Your task to perform on an android device: Add "razer blade" to the cart on ebay, then select checkout. Image 0: 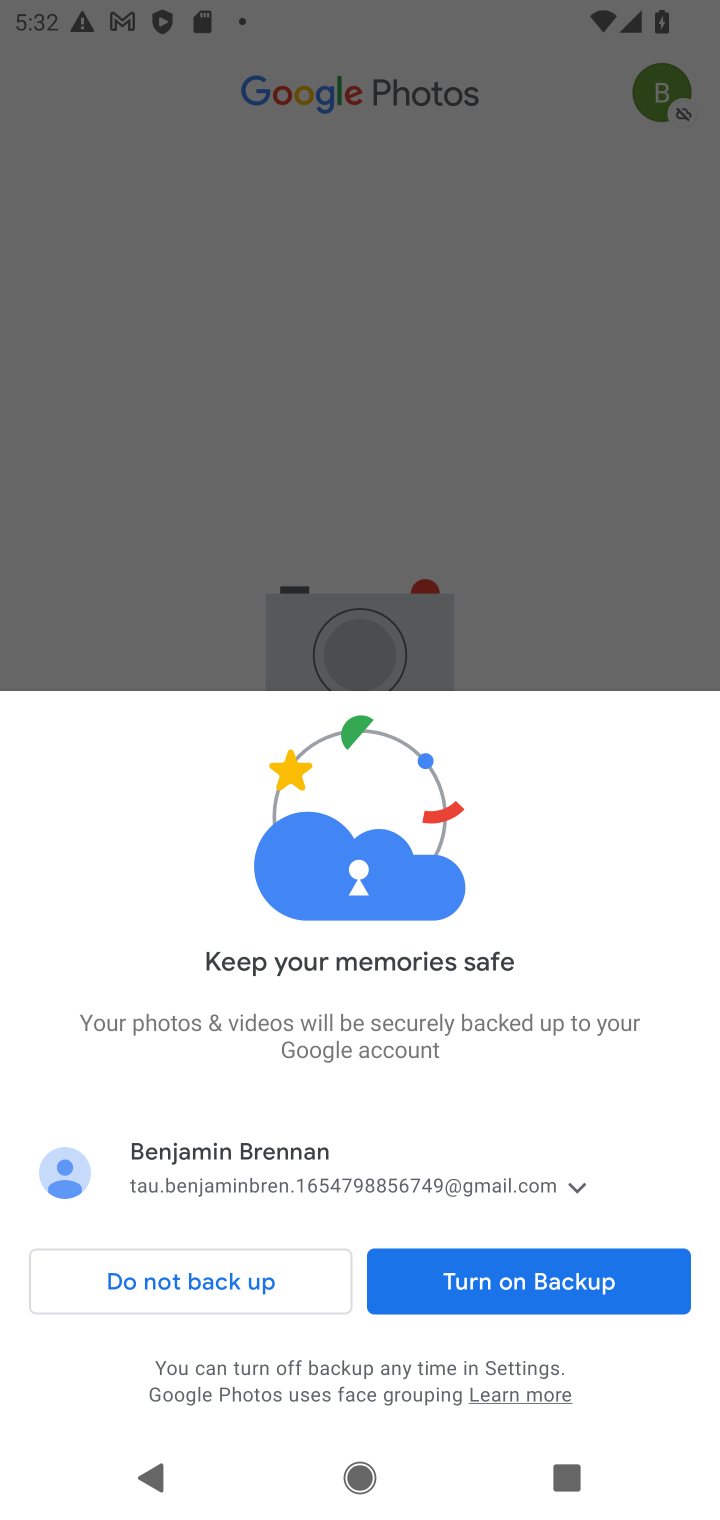
Step 0: press home button
Your task to perform on an android device: Add "razer blade" to the cart on ebay, then select checkout. Image 1: 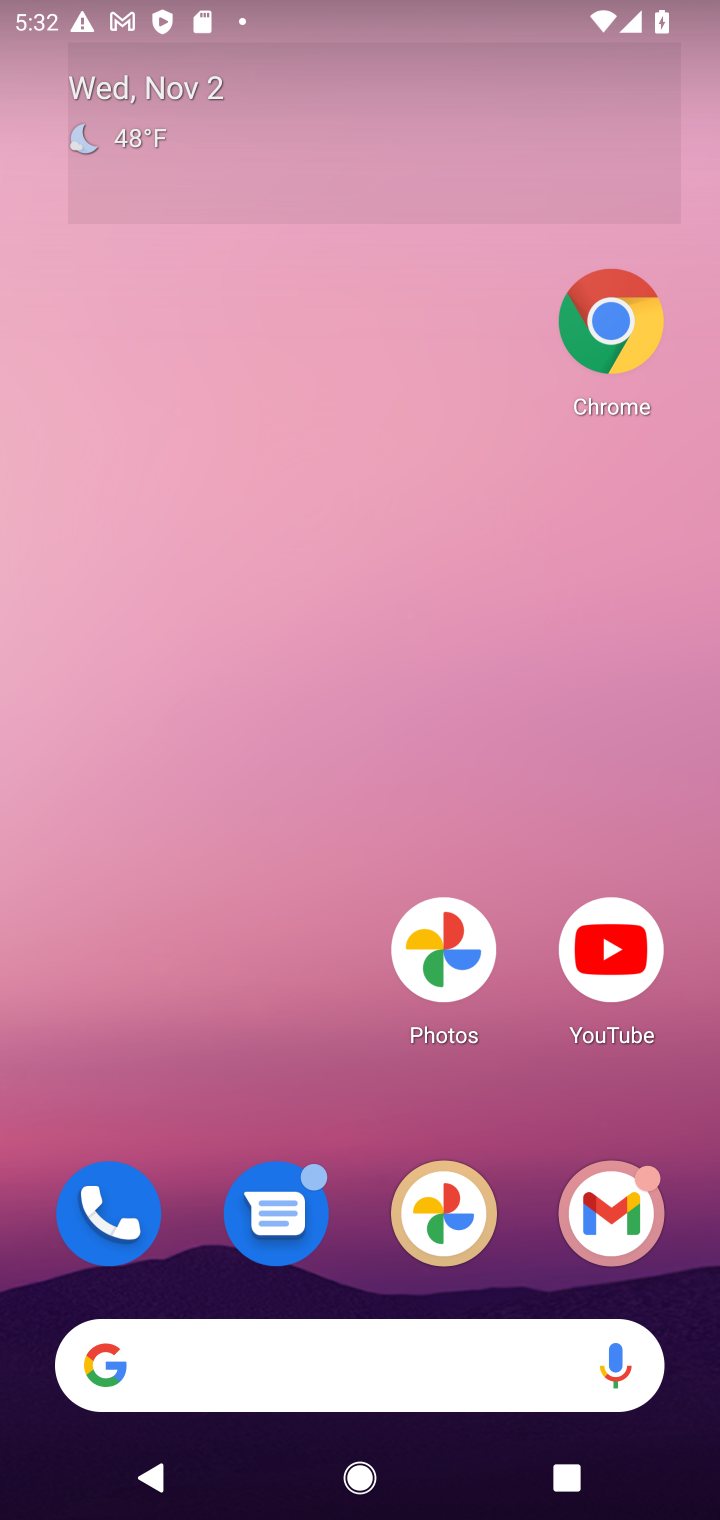
Step 1: drag from (222, 532) to (329, 10)
Your task to perform on an android device: Add "razer blade" to the cart on ebay, then select checkout. Image 2: 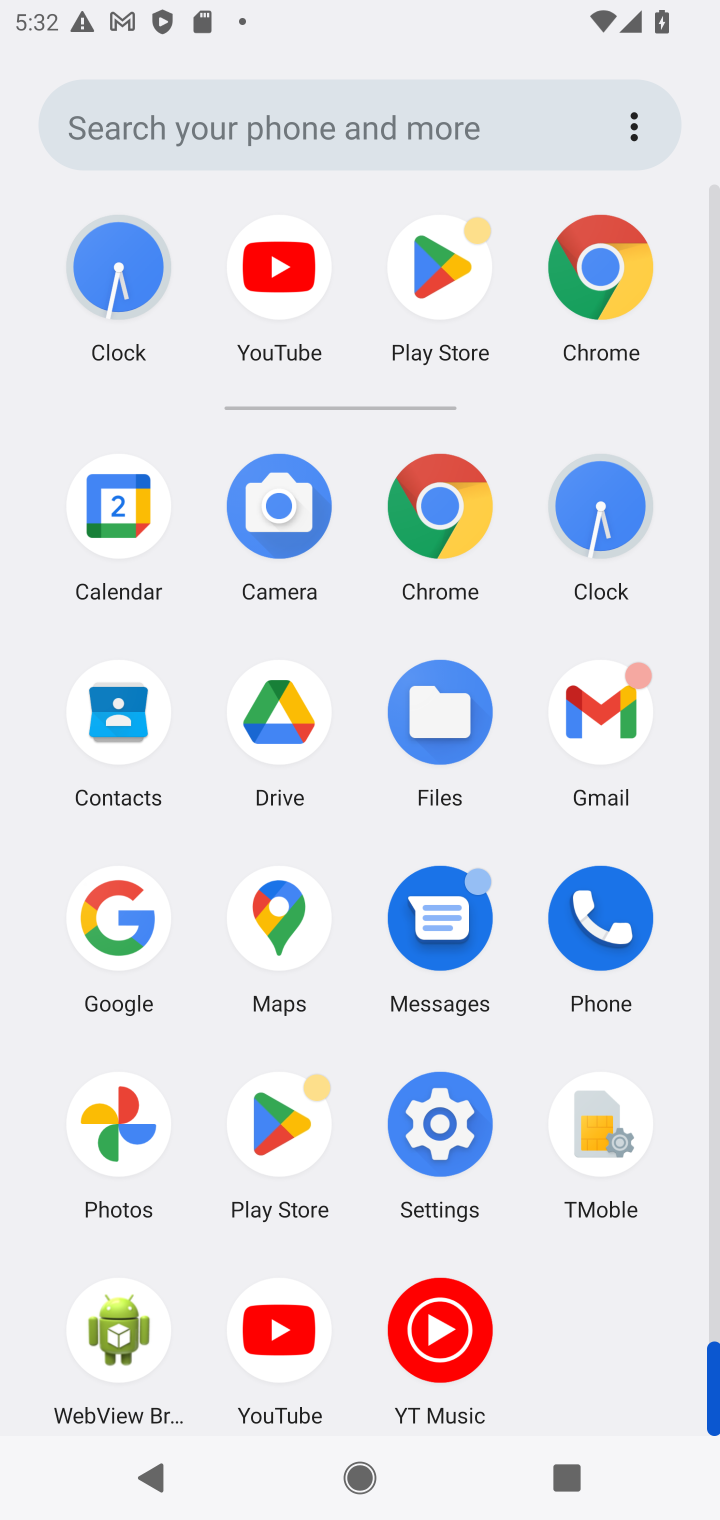
Step 2: click (124, 941)
Your task to perform on an android device: Add "razer blade" to the cart on ebay, then select checkout. Image 3: 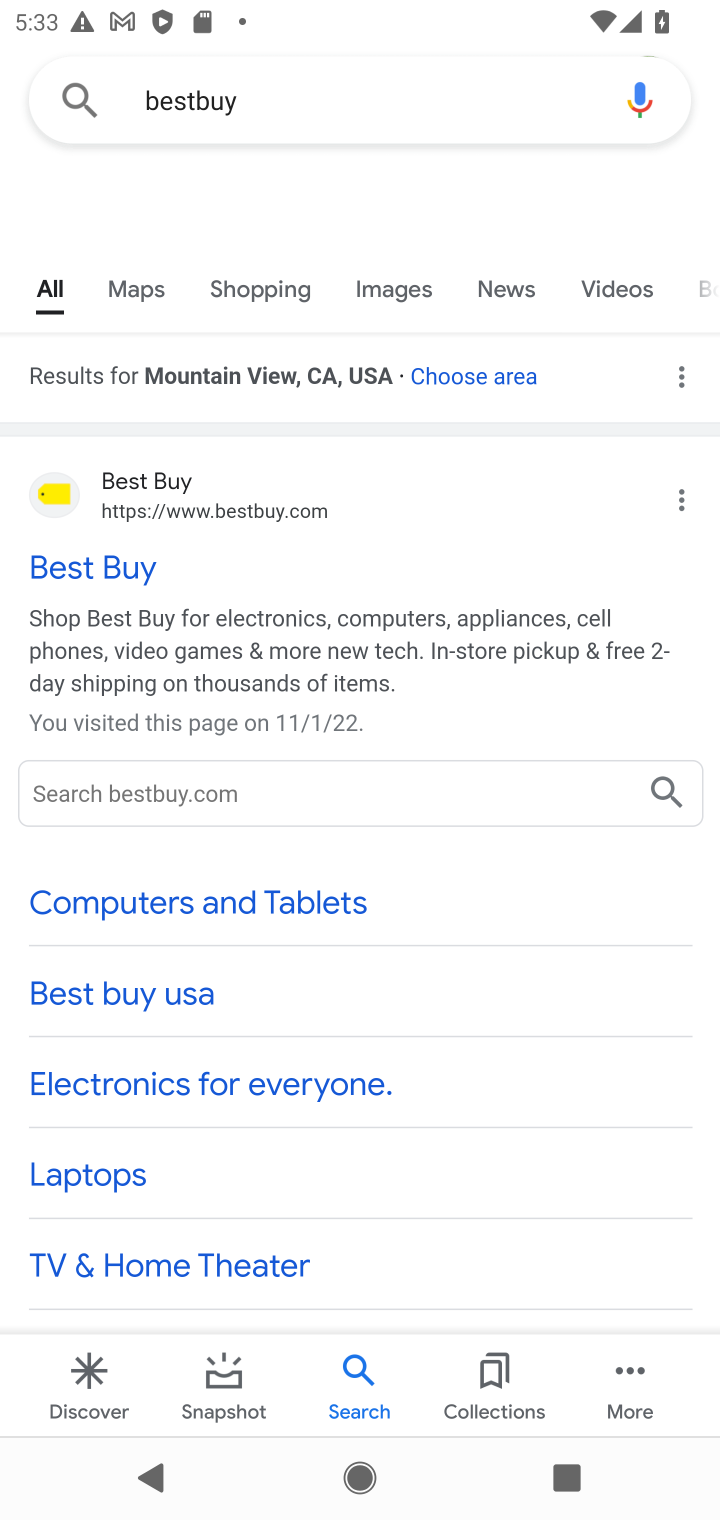
Step 3: click (430, 100)
Your task to perform on an android device: Add "razer blade" to the cart on ebay, then select checkout. Image 4: 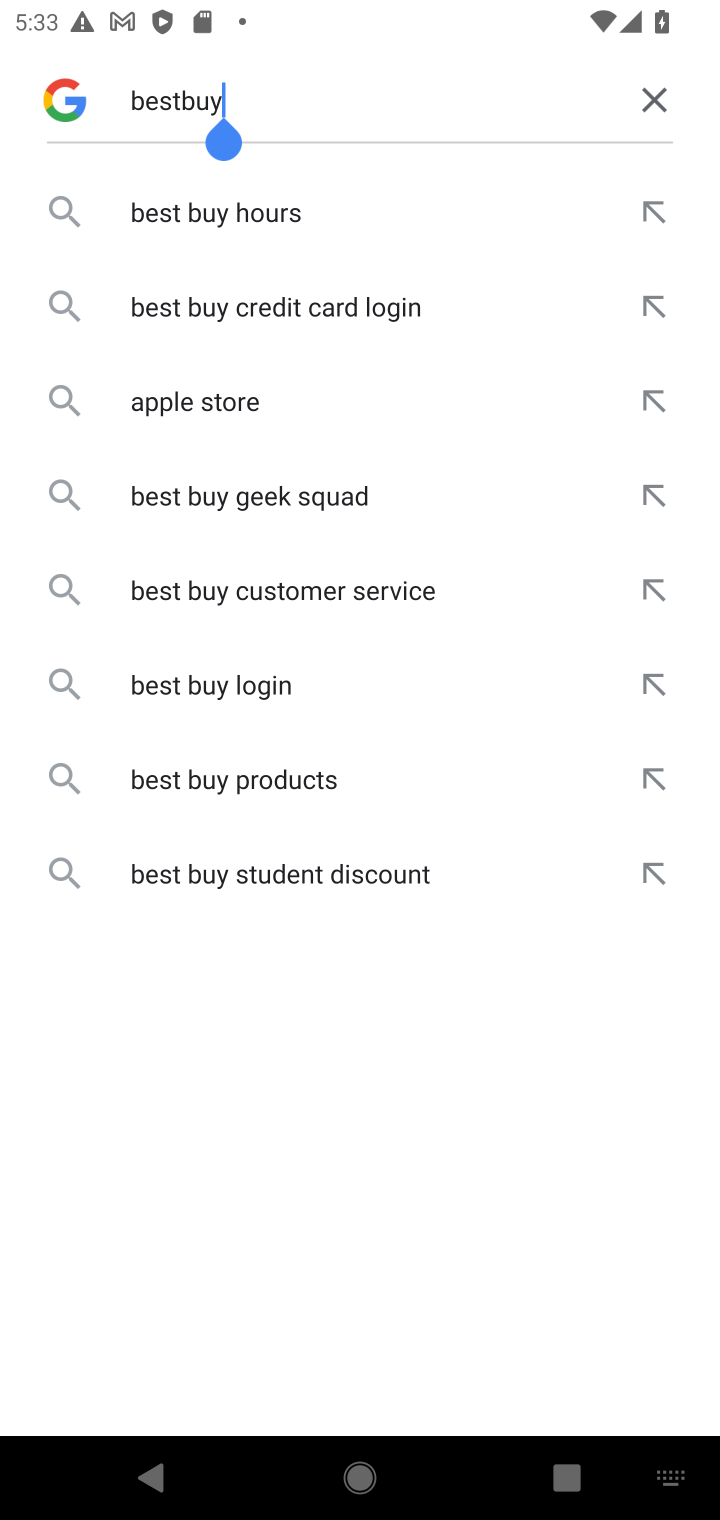
Step 4: click (640, 104)
Your task to perform on an android device: Add "razer blade" to the cart on ebay, then select checkout. Image 5: 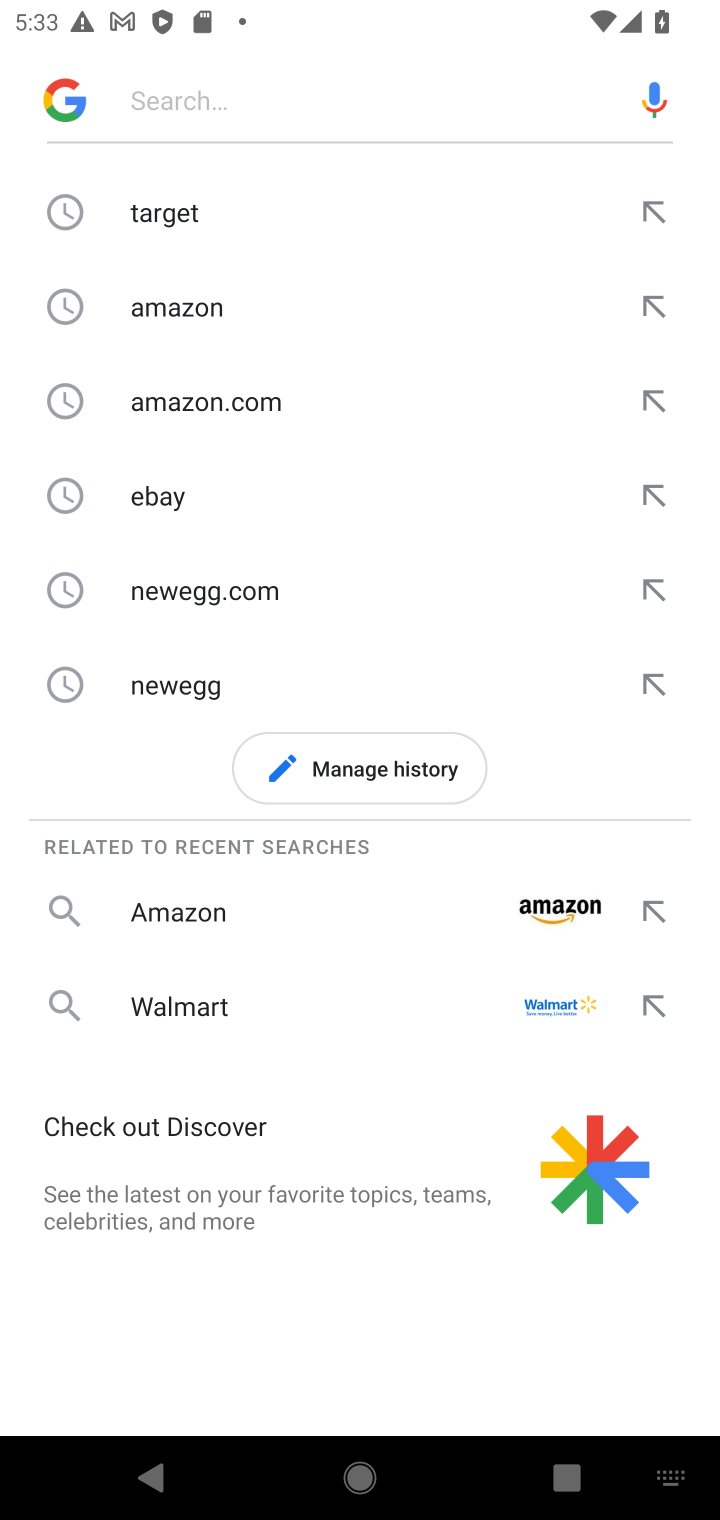
Step 5: type "ebay"
Your task to perform on an android device: Add "razer blade" to the cart on ebay, then select checkout. Image 6: 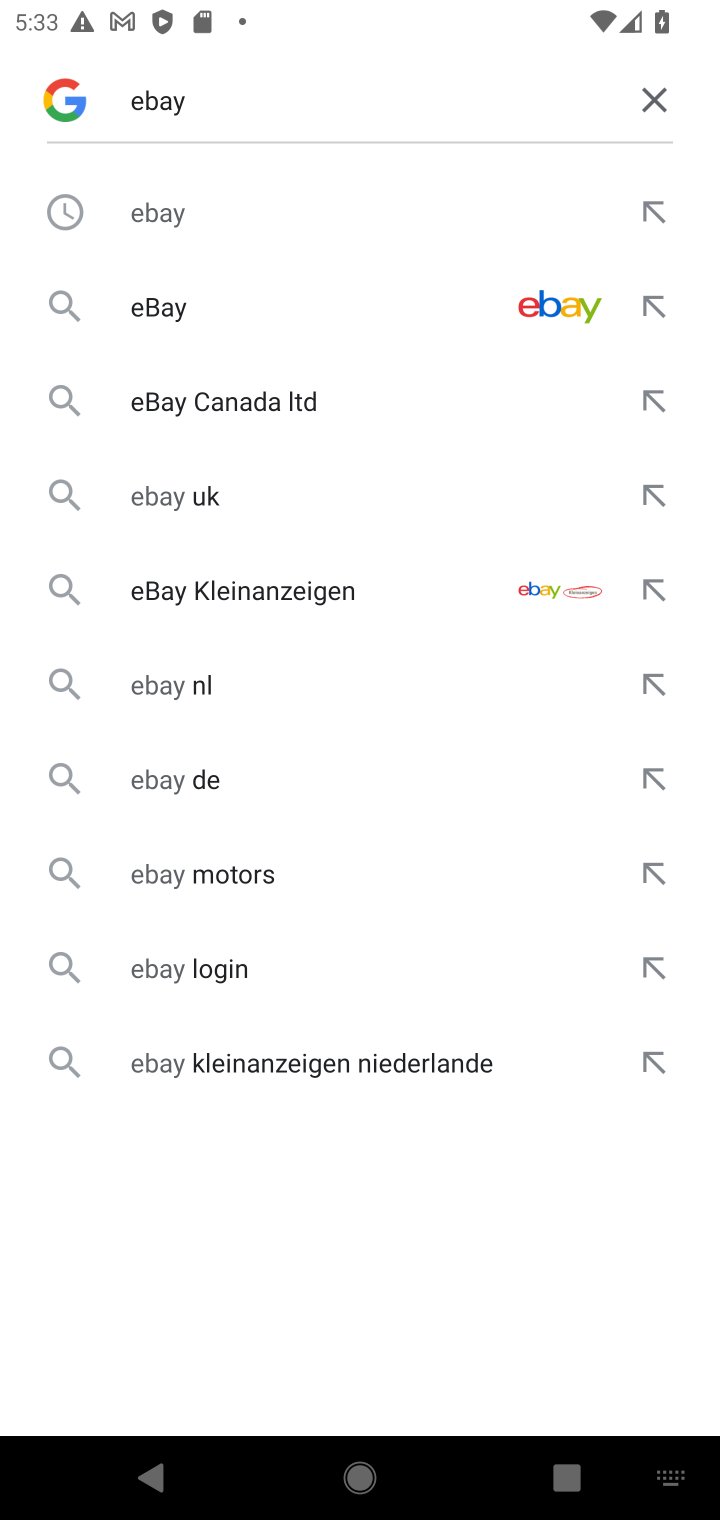
Step 6: click (182, 207)
Your task to perform on an android device: Add "razer blade" to the cart on ebay, then select checkout. Image 7: 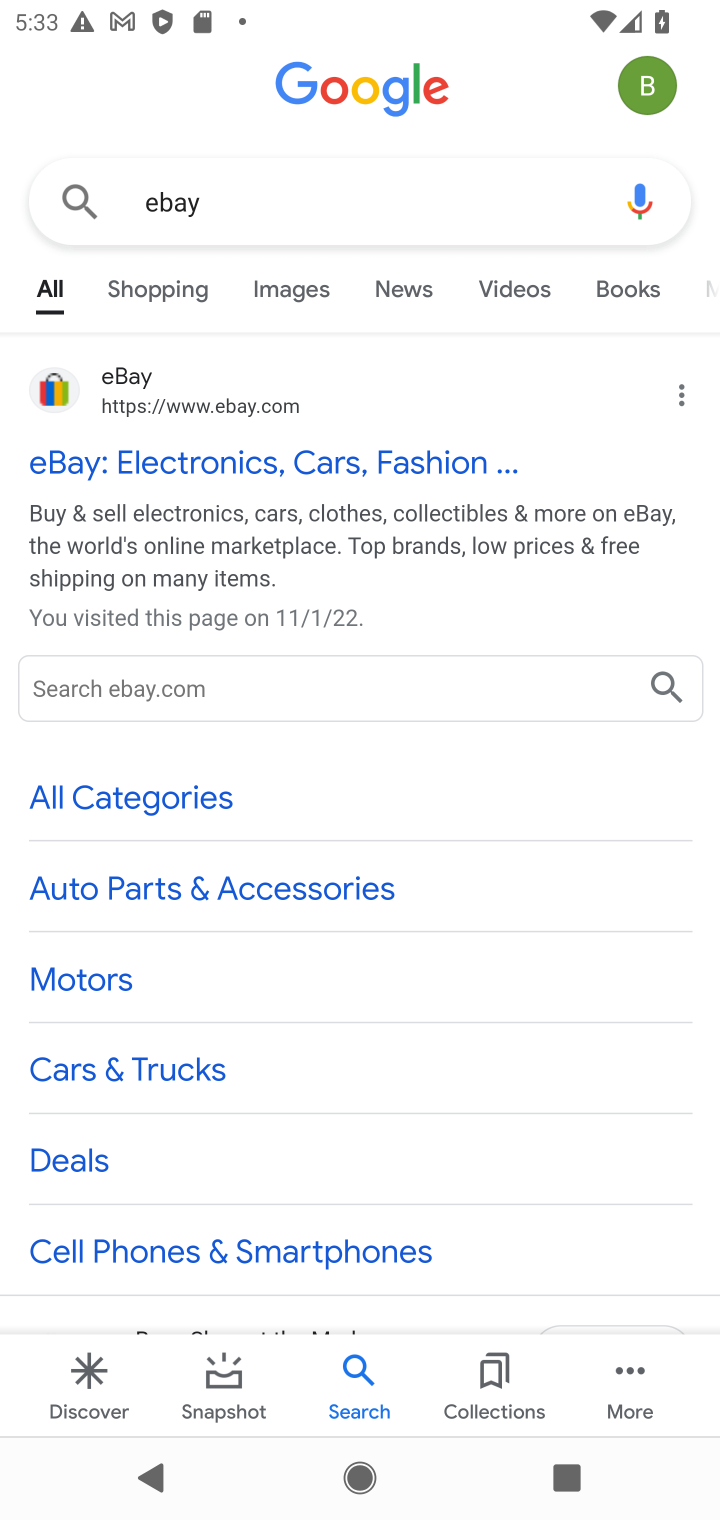
Step 7: click (174, 470)
Your task to perform on an android device: Add "razer blade" to the cart on ebay, then select checkout. Image 8: 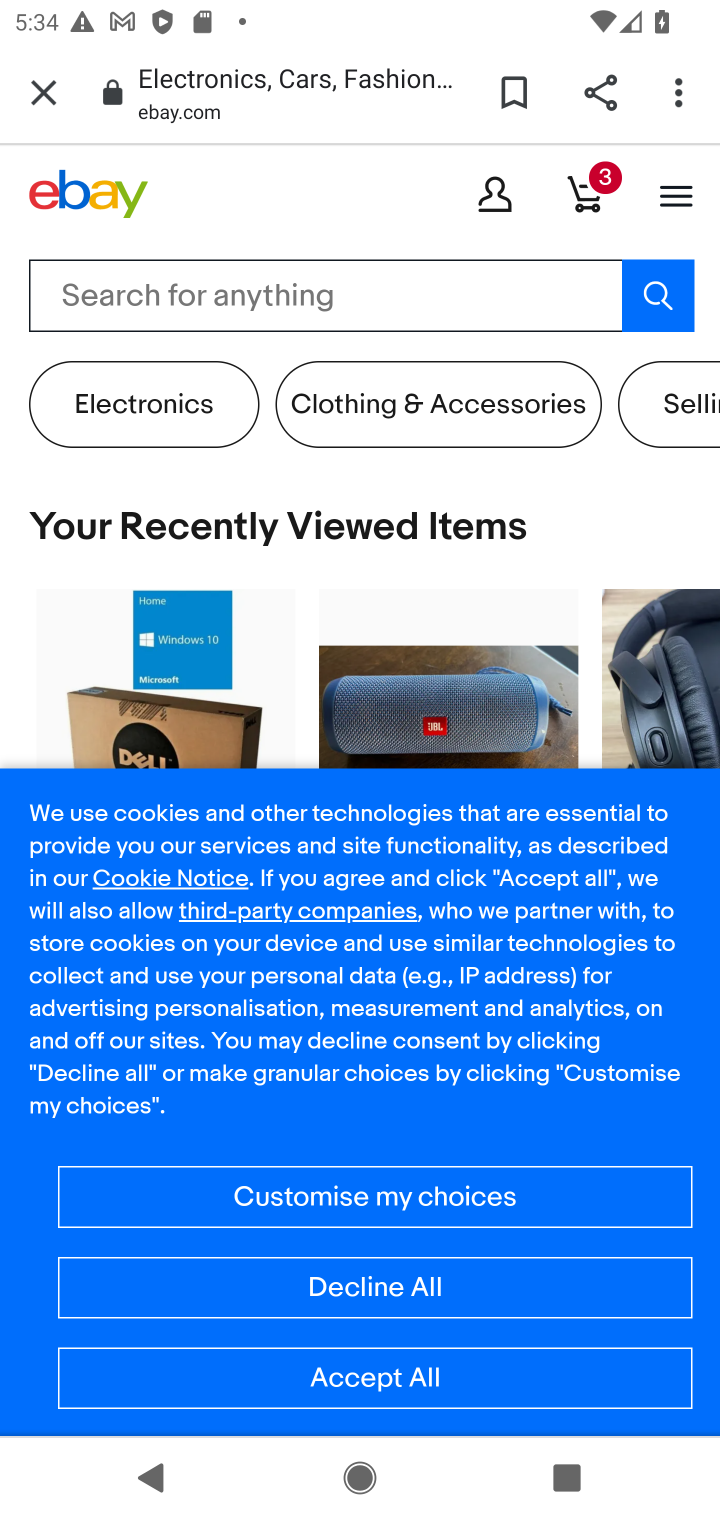
Step 8: click (314, 315)
Your task to perform on an android device: Add "razer blade" to the cart on ebay, then select checkout. Image 9: 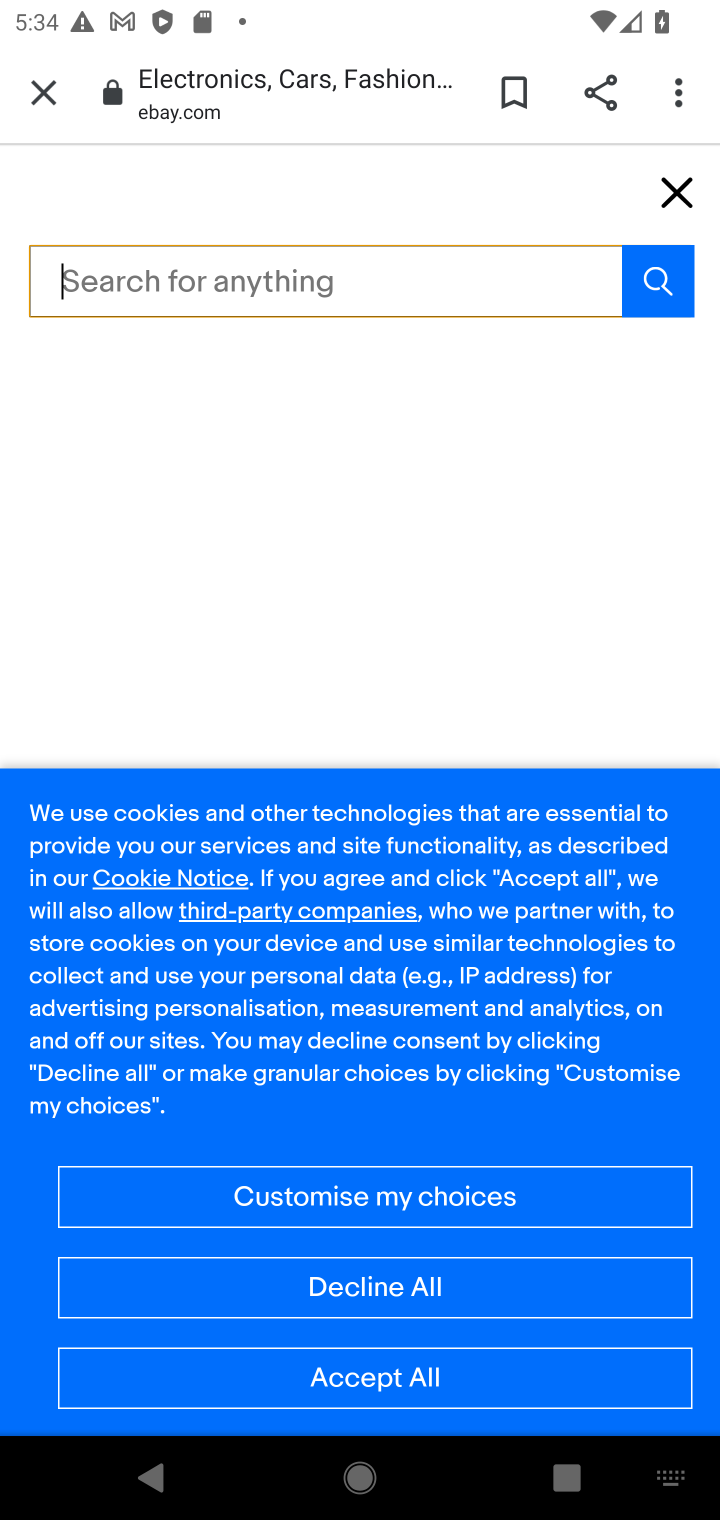
Step 9: type "razer blade"
Your task to perform on an android device: Add "razer blade" to the cart on ebay, then select checkout. Image 10: 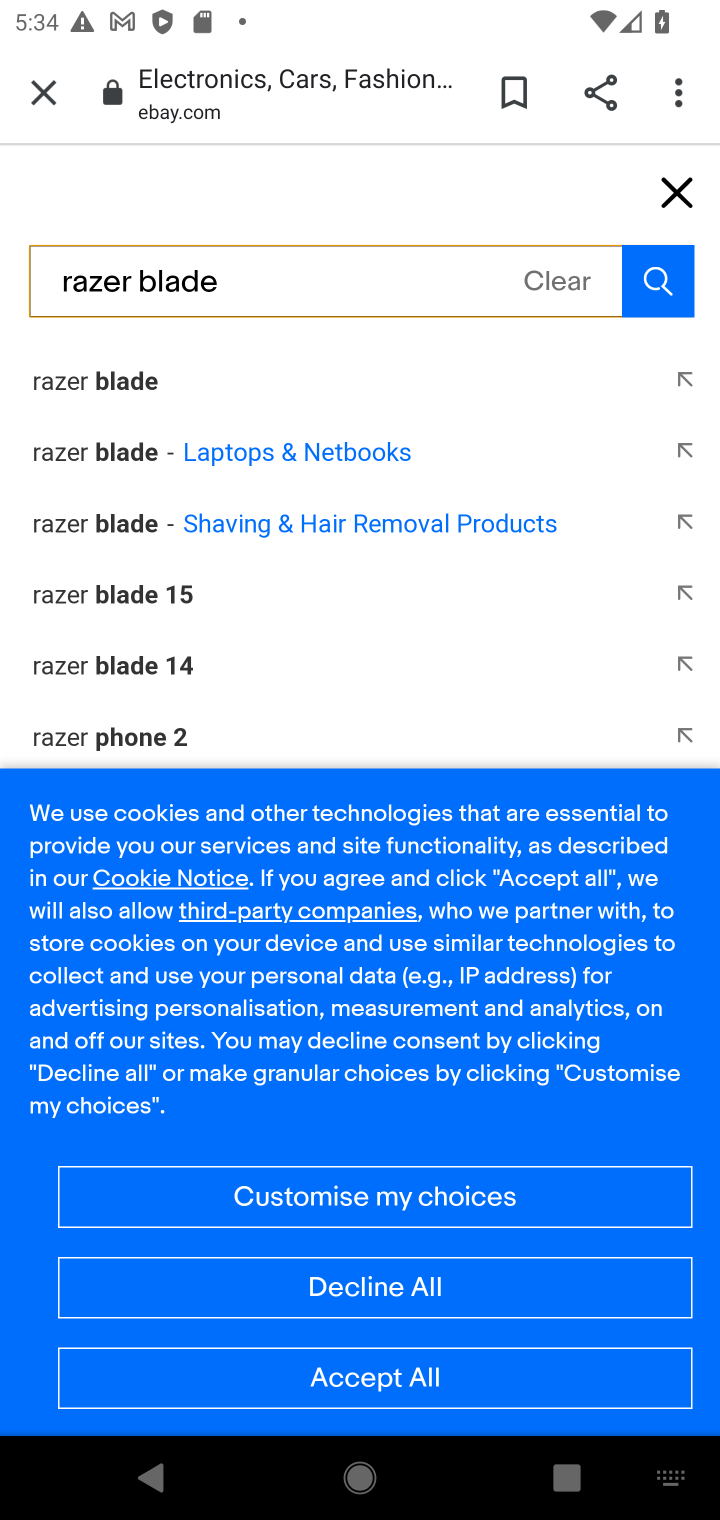
Step 10: click (330, 369)
Your task to perform on an android device: Add "razer blade" to the cart on ebay, then select checkout. Image 11: 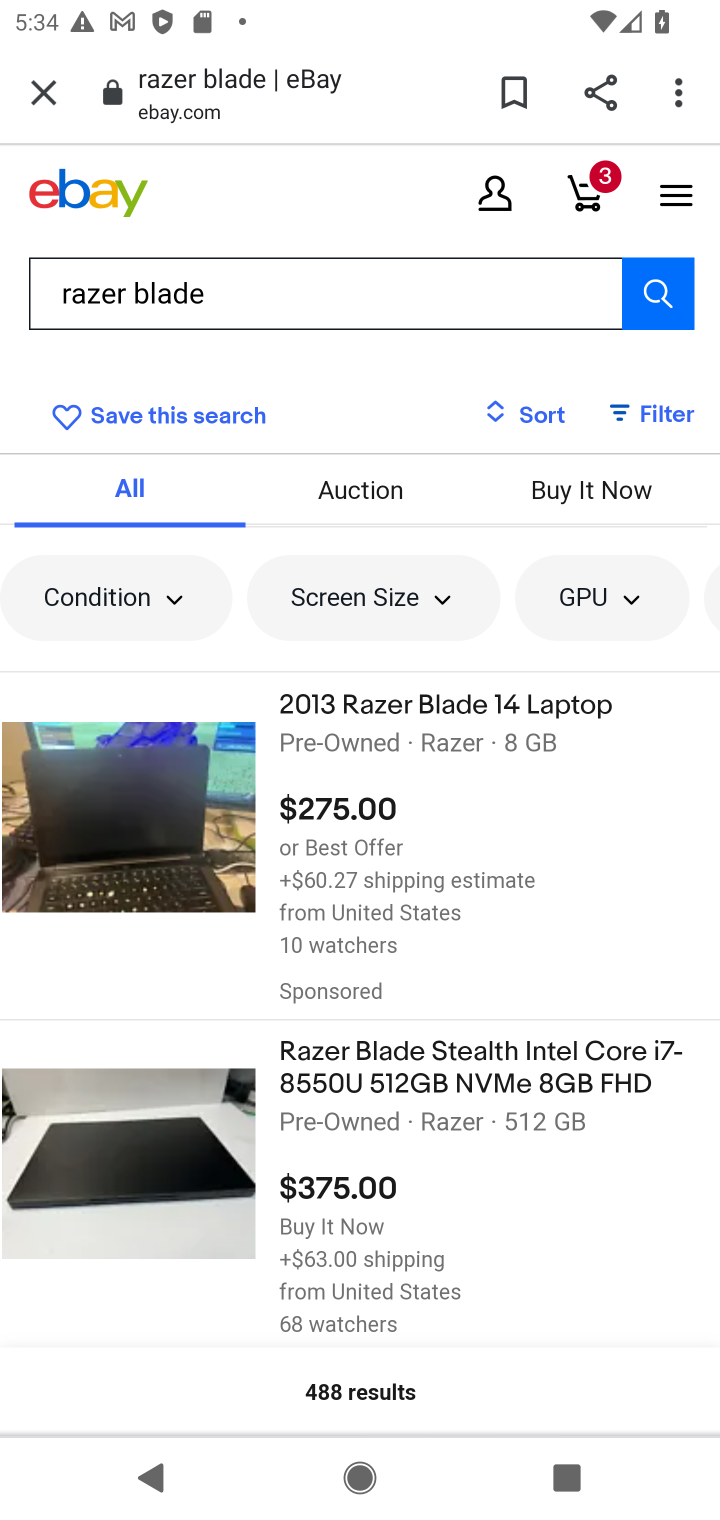
Step 11: click (190, 815)
Your task to perform on an android device: Add "razer blade" to the cart on ebay, then select checkout. Image 12: 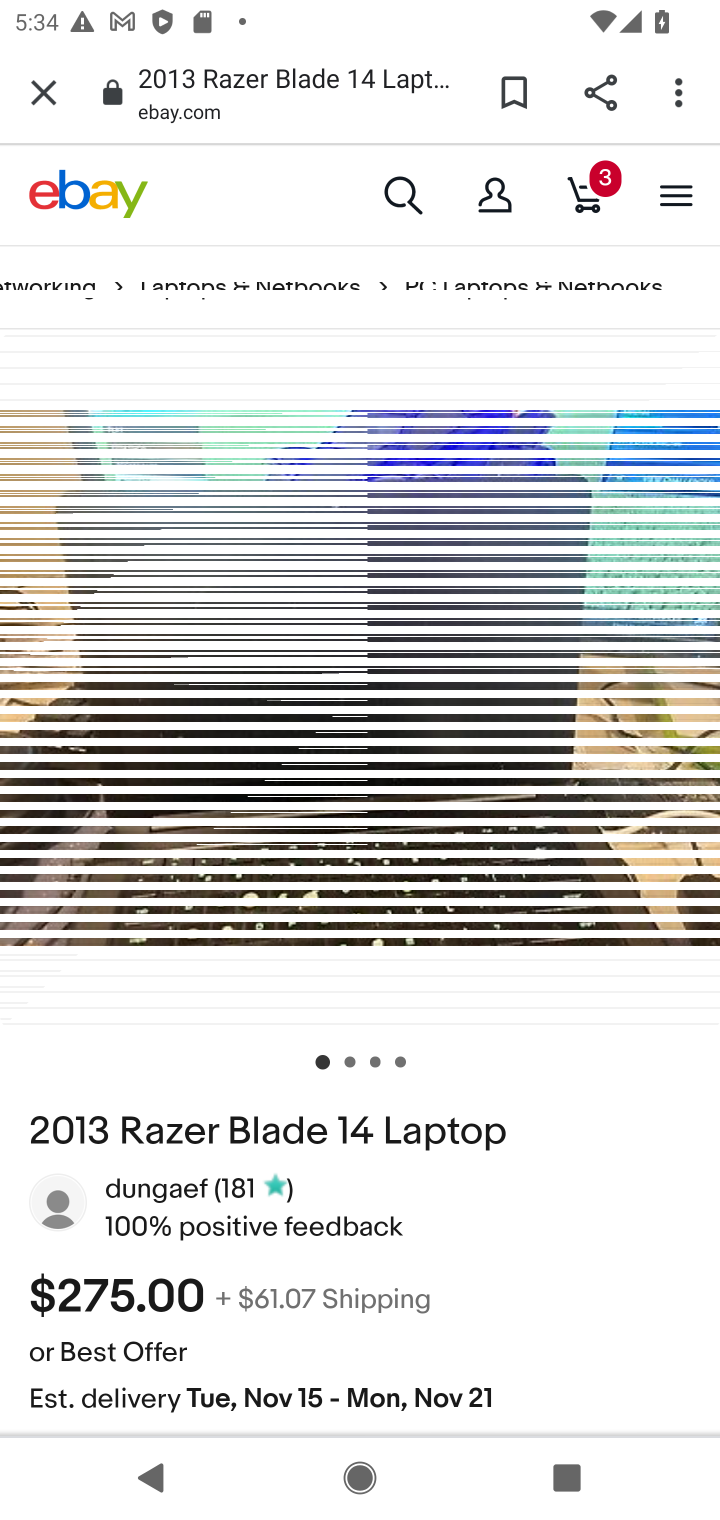
Step 12: click (387, 757)
Your task to perform on an android device: Add "razer blade" to the cart on ebay, then select checkout. Image 13: 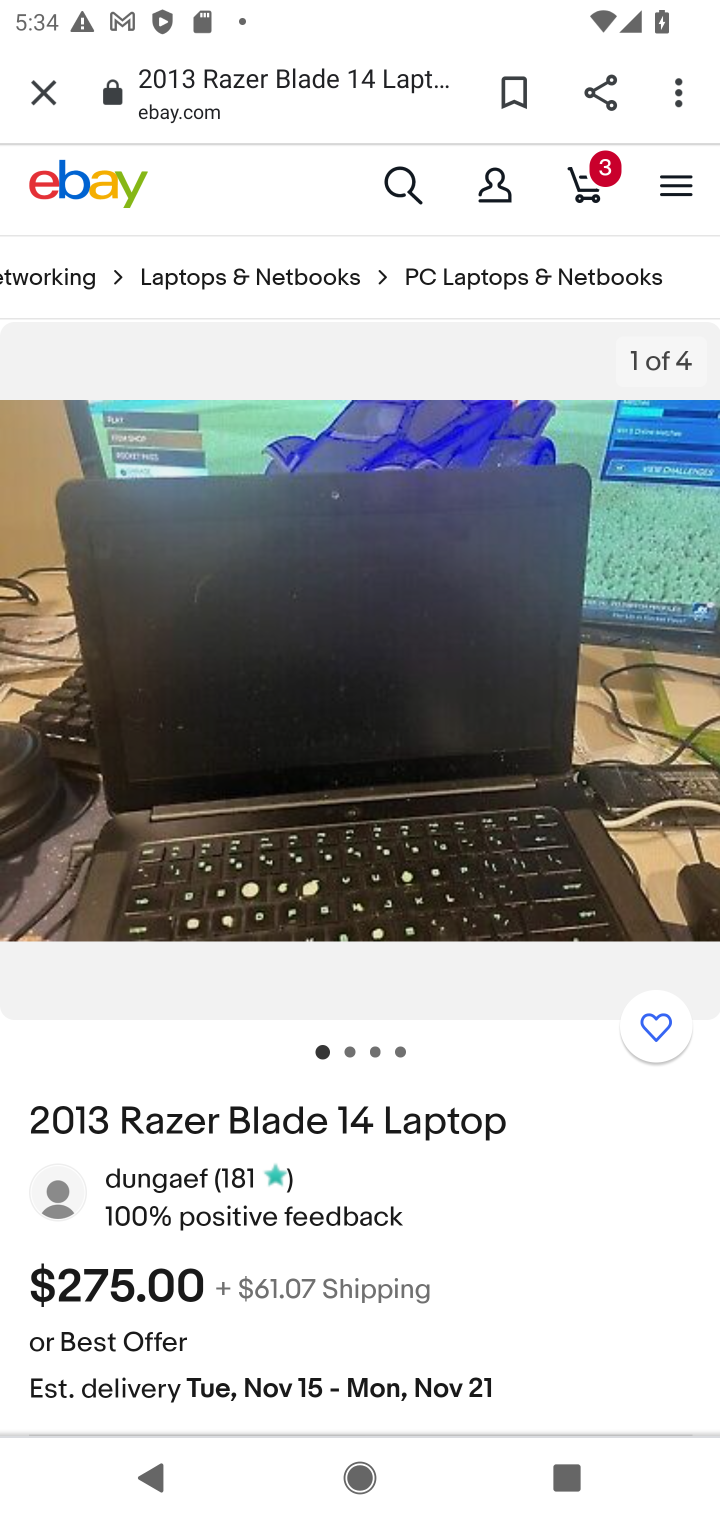
Step 13: drag from (352, 1026) to (349, 416)
Your task to perform on an android device: Add "razer blade" to the cart on ebay, then select checkout. Image 14: 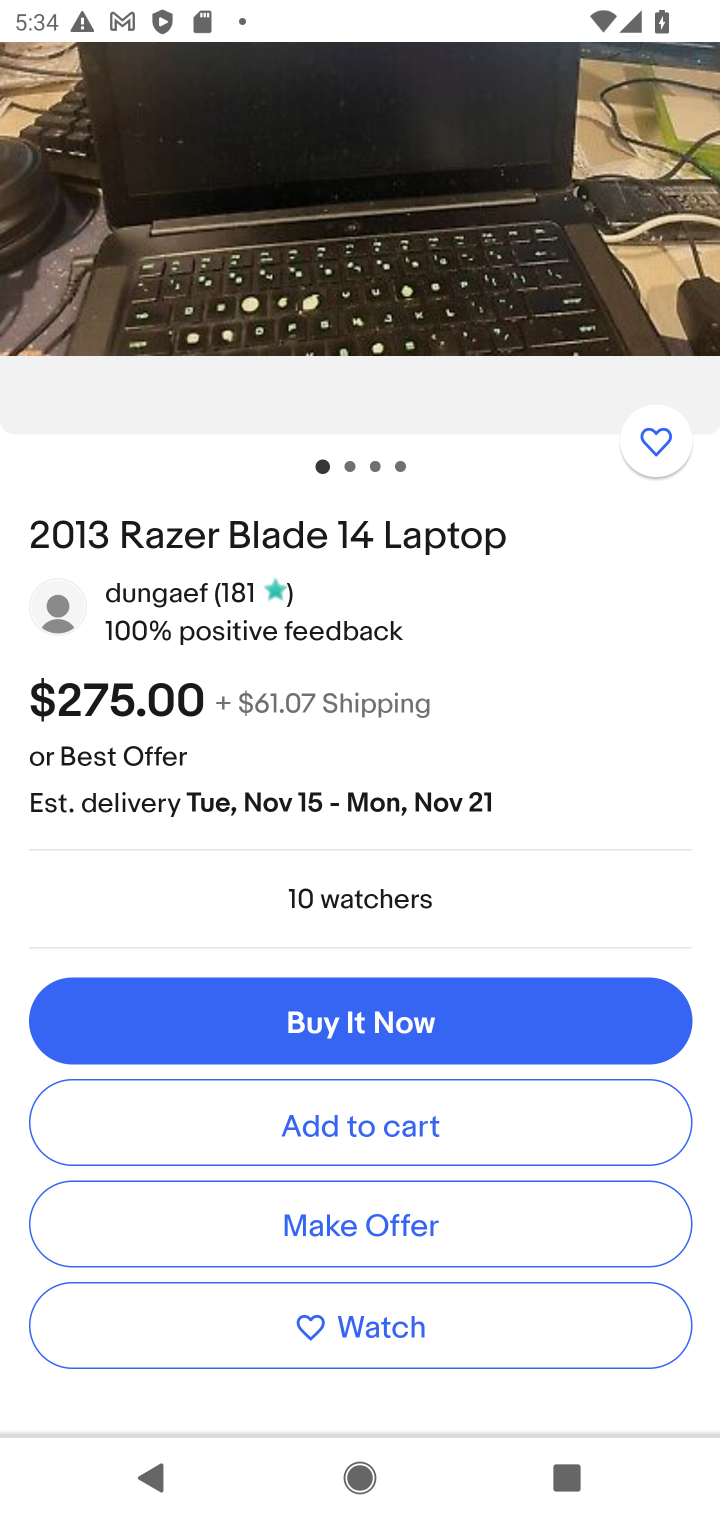
Step 14: click (381, 1139)
Your task to perform on an android device: Add "razer blade" to the cart on ebay, then select checkout. Image 15: 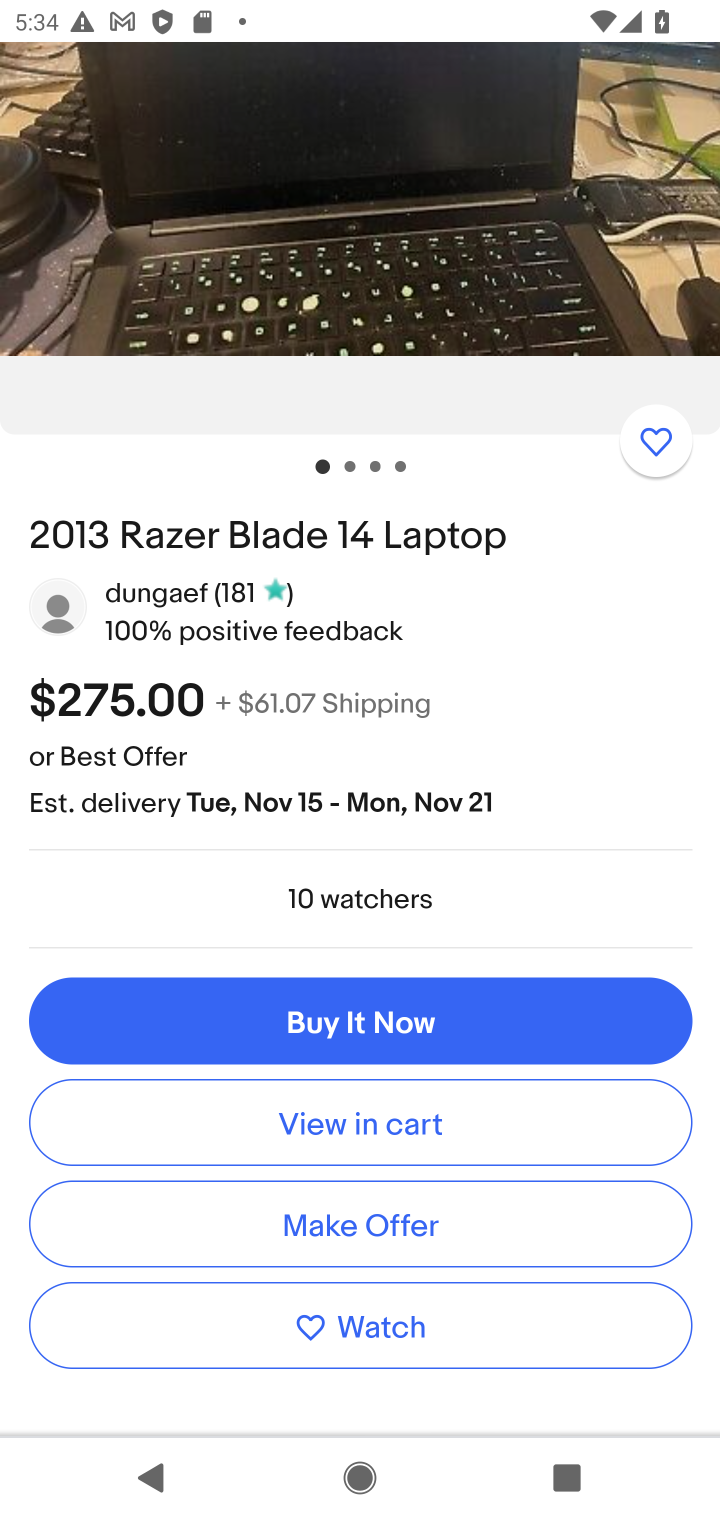
Step 15: click (381, 1139)
Your task to perform on an android device: Add "razer blade" to the cart on ebay, then select checkout. Image 16: 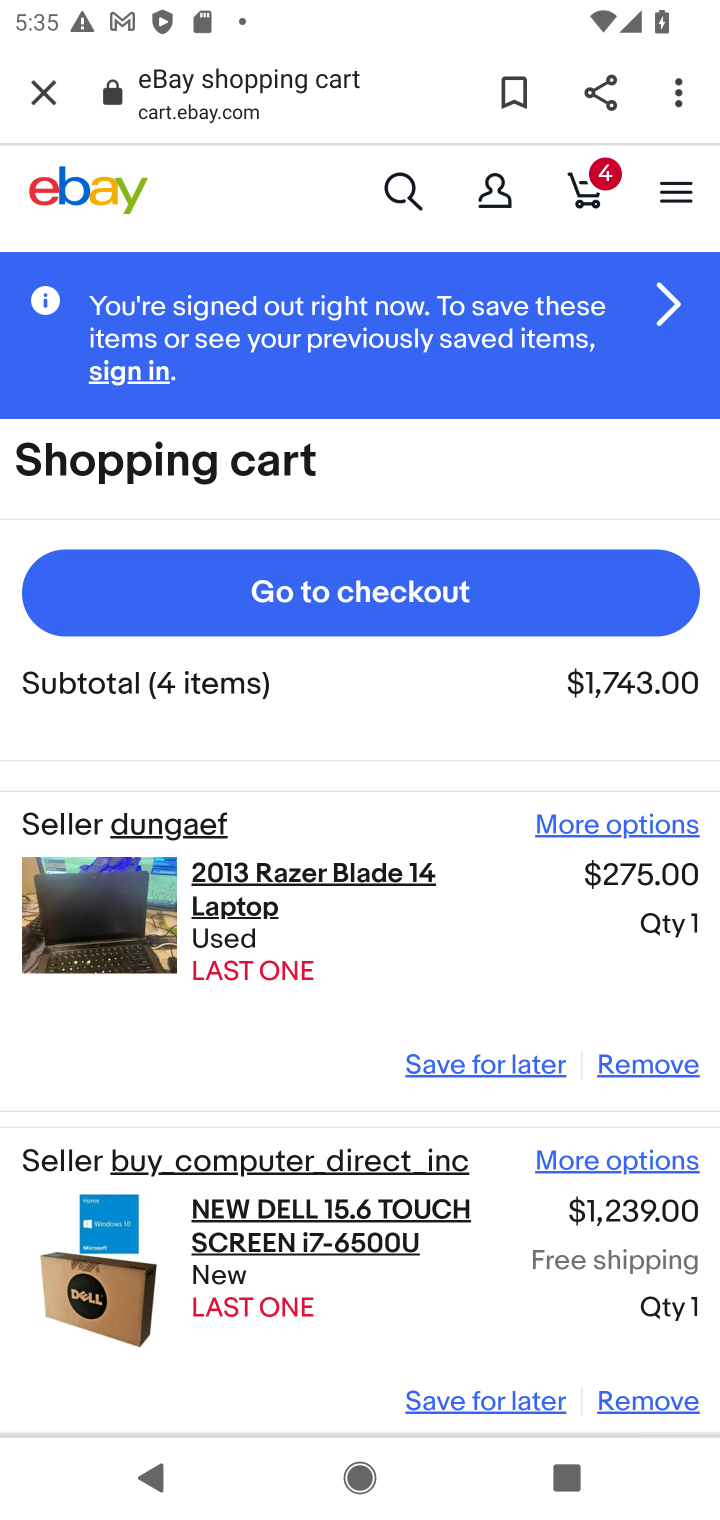
Step 16: click (469, 569)
Your task to perform on an android device: Add "razer blade" to the cart on ebay, then select checkout. Image 17: 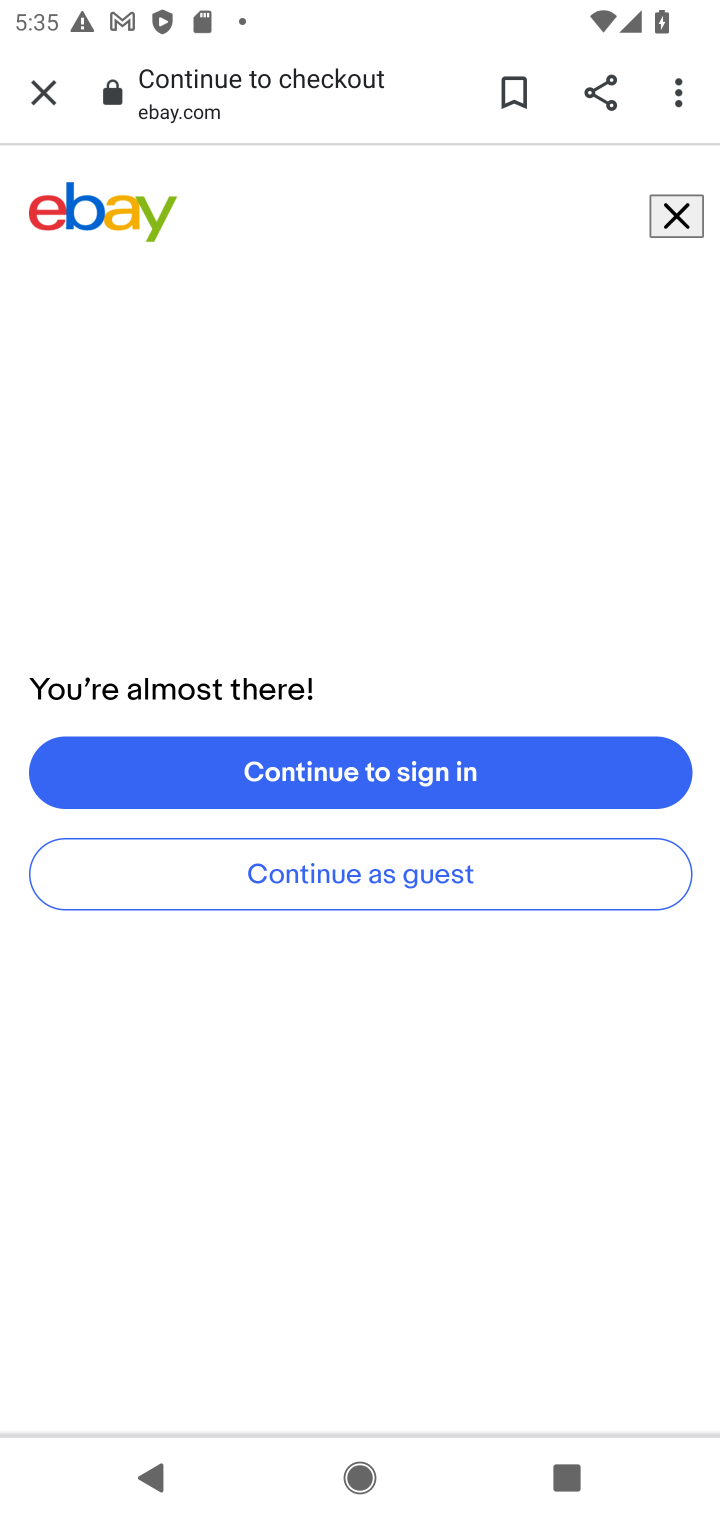
Step 17: task complete